Your task to perform on an android device: check data usage Image 0: 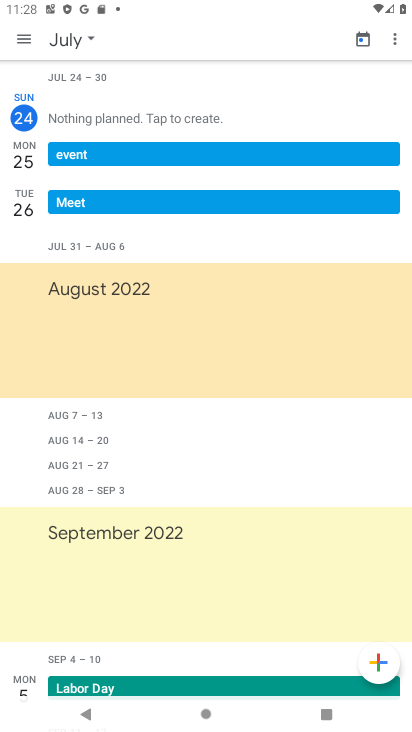
Step 0: press home button
Your task to perform on an android device: check data usage Image 1: 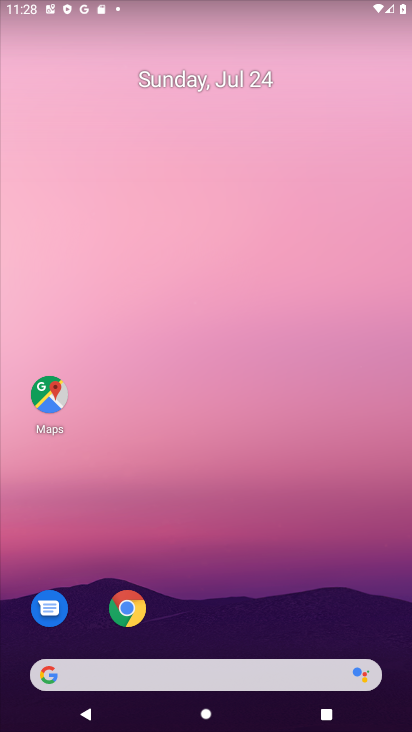
Step 1: drag from (257, 21) to (211, 3)
Your task to perform on an android device: check data usage Image 2: 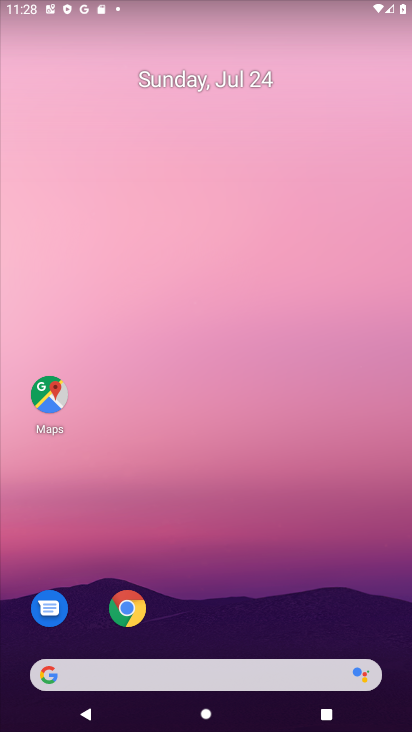
Step 2: drag from (321, 525) to (232, 0)
Your task to perform on an android device: check data usage Image 3: 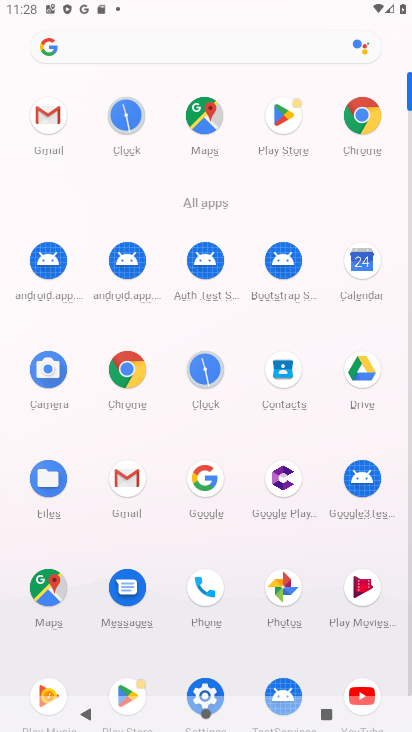
Step 3: drag from (128, 598) to (145, 283)
Your task to perform on an android device: check data usage Image 4: 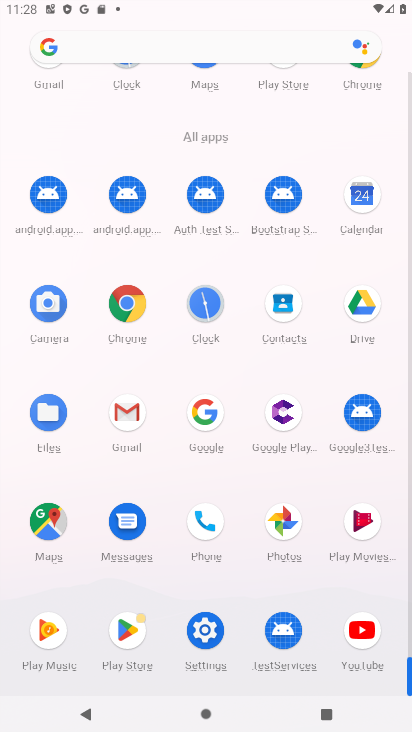
Step 4: click (182, 637)
Your task to perform on an android device: check data usage Image 5: 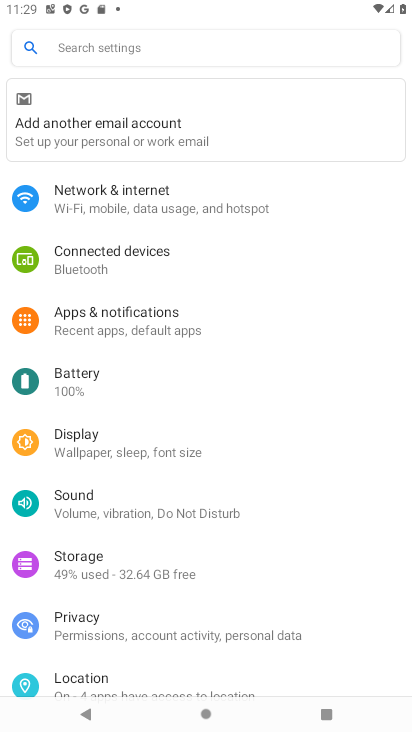
Step 5: click (77, 205)
Your task to perform on an android device: check data usage Image 6: 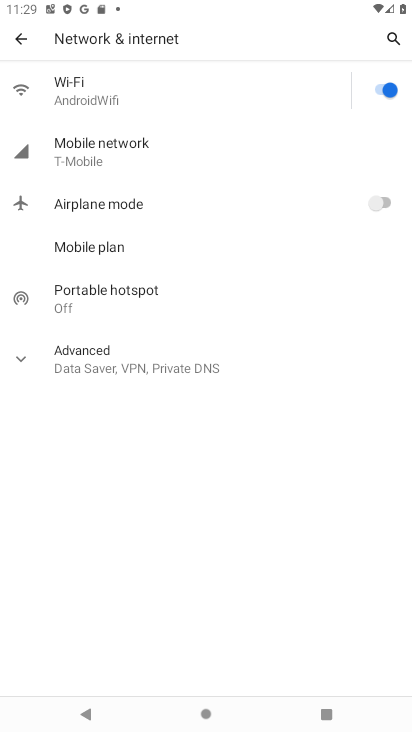
Step 6: click (65, 165)
Your task to perform on an android device: check data usage Image 7: 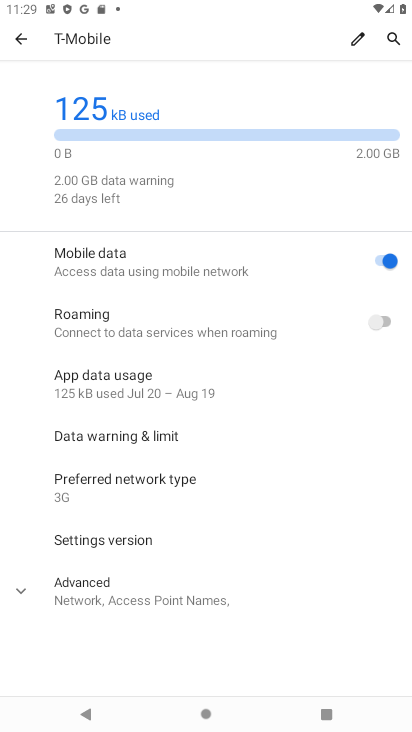
Step 7: task complete